Your task to perform on an android device: star an email in the gmail app Image 0: 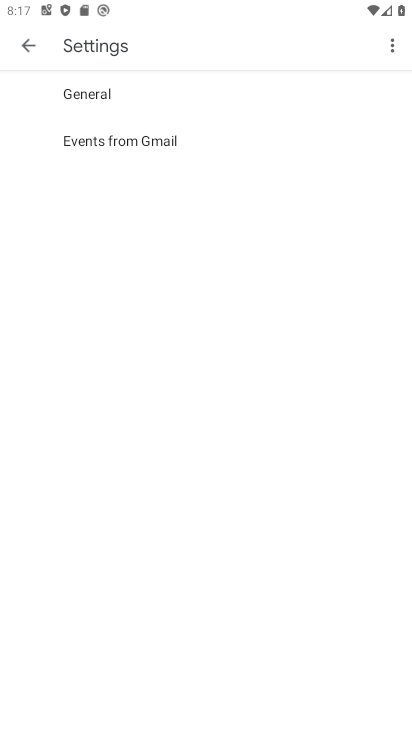
Step 0: press home button
Your task to perform on an android device: star an email in the gmail app Image 1: 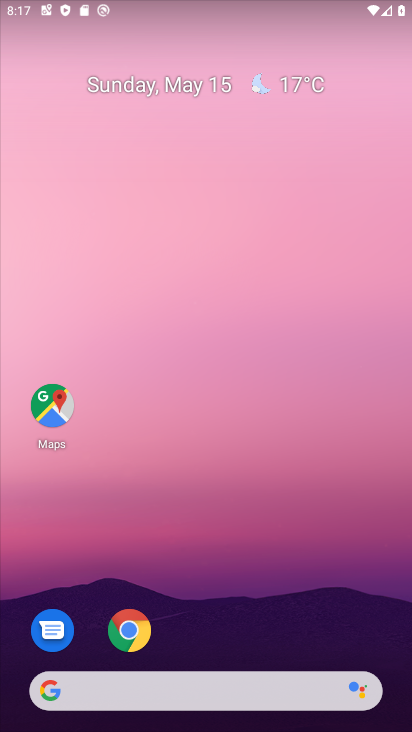
Step 1: drag from (270, 589) to (191, 18)
Your task to perform on an android device: star an email in the gmail app Image 2: 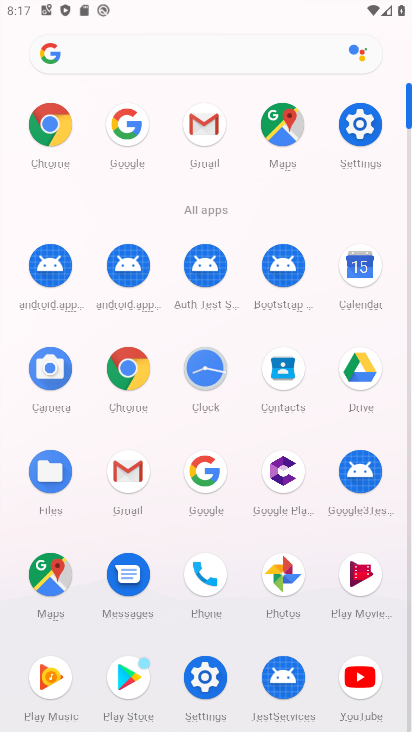
Step 2: click (220, 136)
Your task to perform on an android device: star an email in the gmail app Image 3: 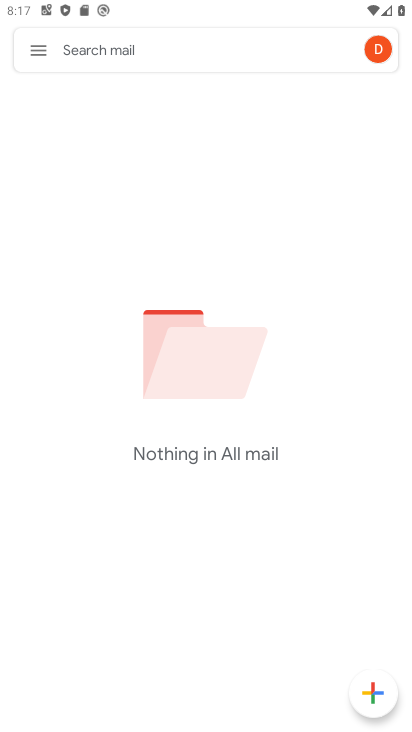
Step 3: task complete